Your task to perform on an android device: Go to privacy settings Image 0: 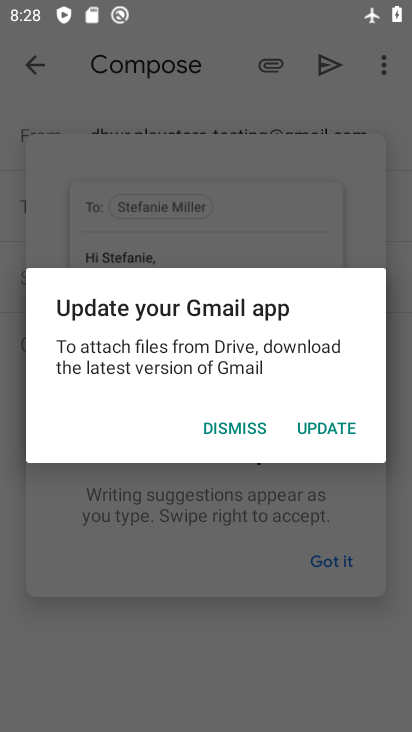
Step 0: press back button
Your task to perform on an android device: Go to privacy settings Image 1: 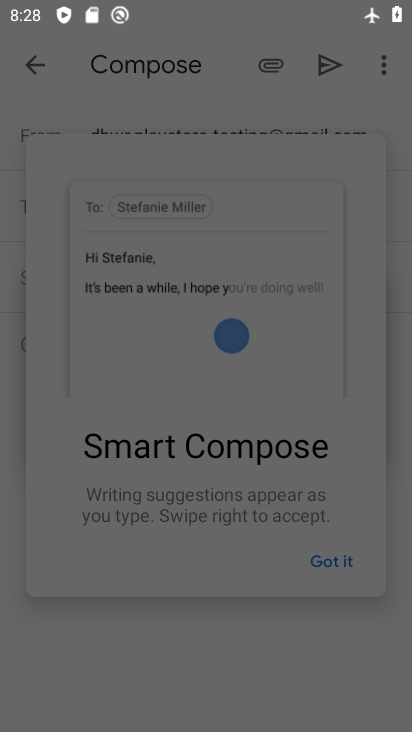
Step 1: click (229, 426)
Your task to perform on an android device: Go to privacy settings Image 2: 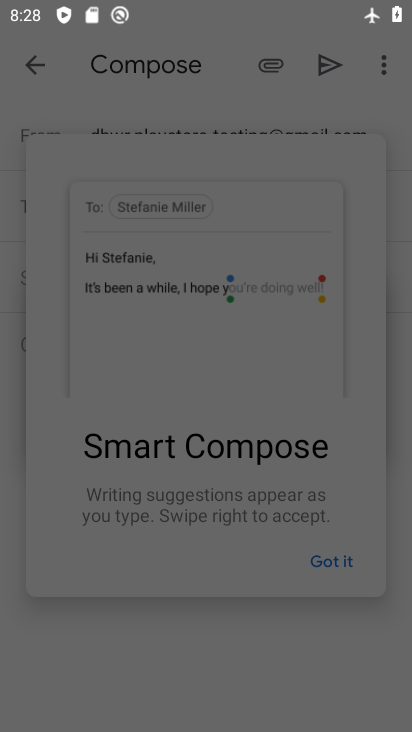
Step 2: press back button
Your task to perform on an android device: Go to privacy settings Image 3: 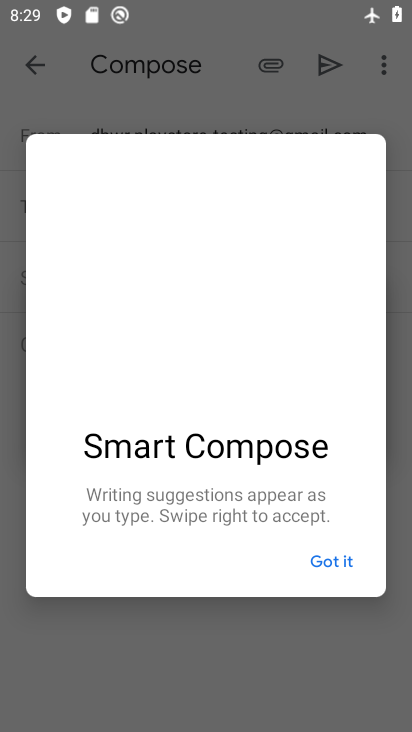
Step 3: press back button
Your task to perform on an android device: Go to privacy settings Image 4: 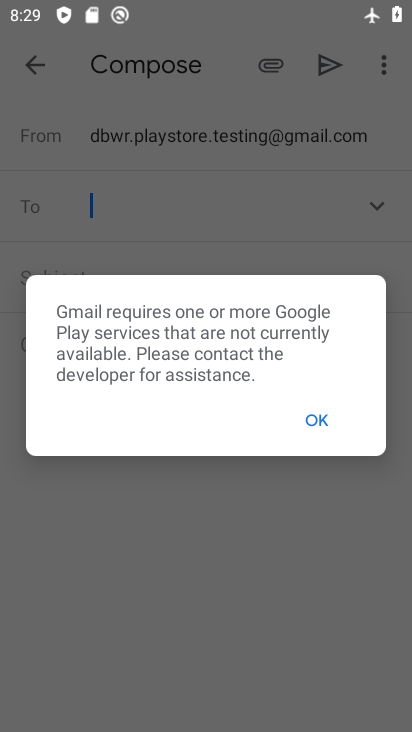
Step 4: click (317, 413)
Your task to perform on an android device: Go to privacy settings Image 5: 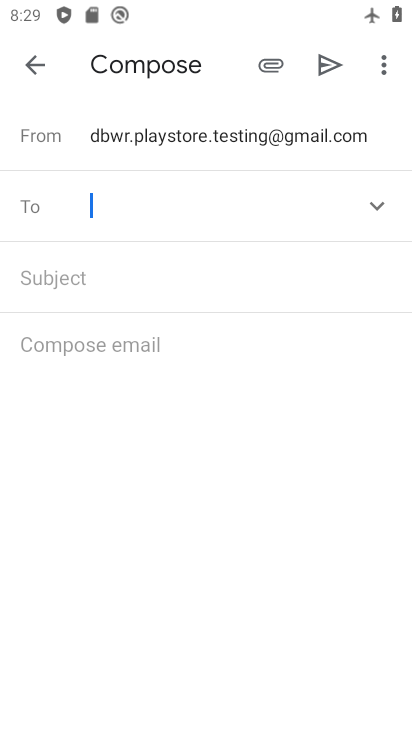
Step 5: press back button
Your task to perform on an android device: Go to privacy settings Image 6: 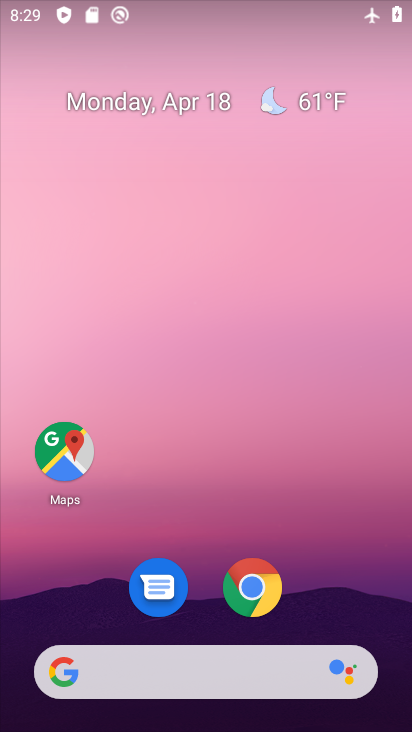
Step 6: drag from (209, 723) to (197, 106)
Your task to perform on an android device: Go to privacy settings Image 7: 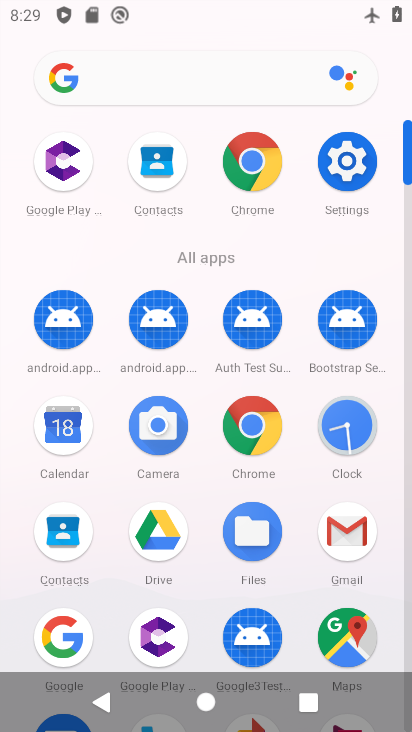
Step 7: click (344, 174)
Your task to perform on an android device: Go to privacy settings Image 8: 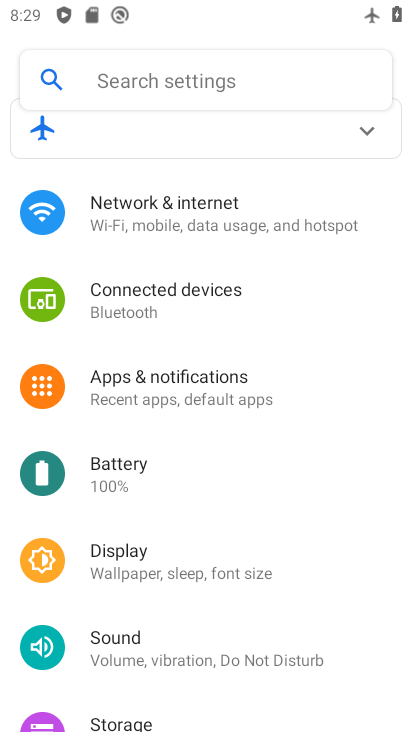
Step 8: drag from (176, 684) to (178, 159)
Your task to perform on an android device: Go to privacy settings Image 9: 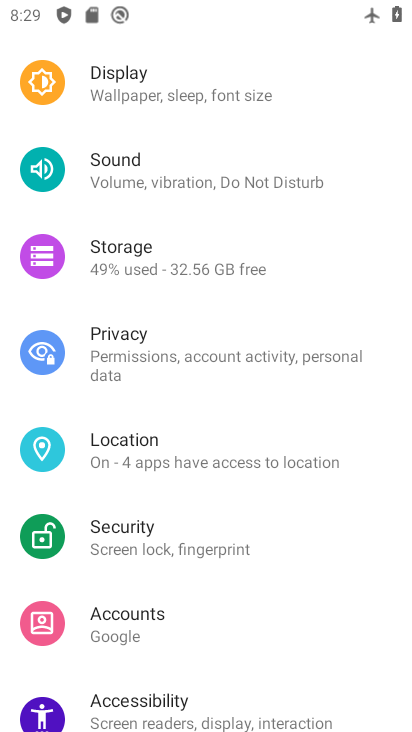
Step 9: click (116, 346)
Your task to perform on an android device: Go to privacy settings Image 10: 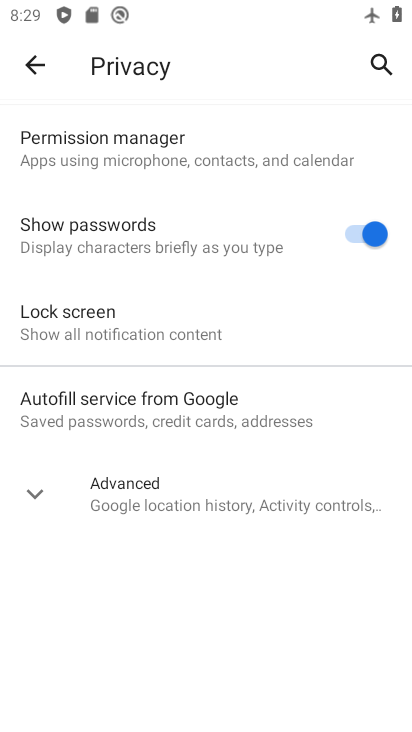
Step 10: task complete